Your task to perform on an android device: open app "AliExpress" (install if not already installed) Image 0: 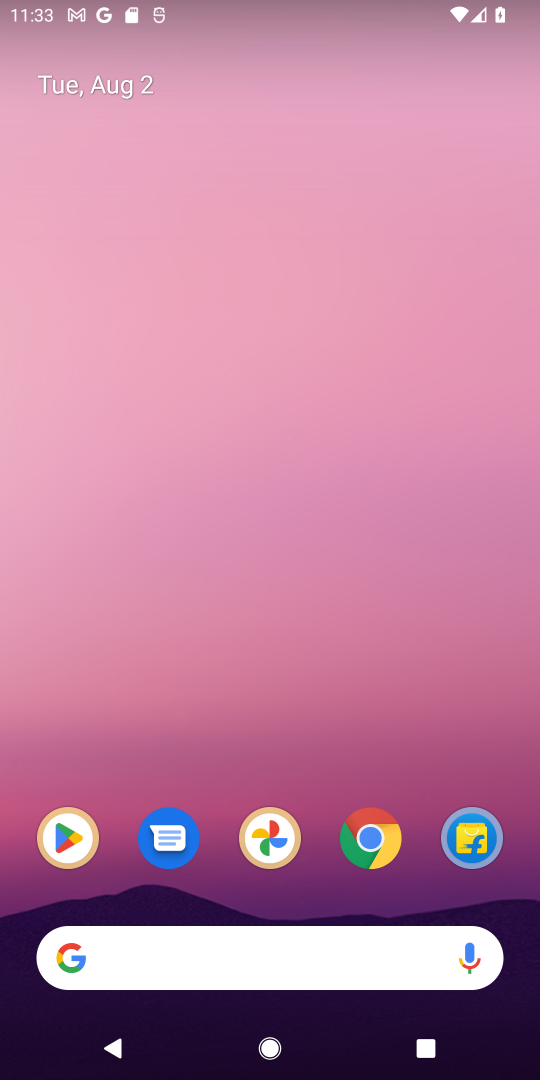
Step 0: click (79, 842)
Your task to perform on an android device: open app "AliExpress" (install if not already installed) Image 1: 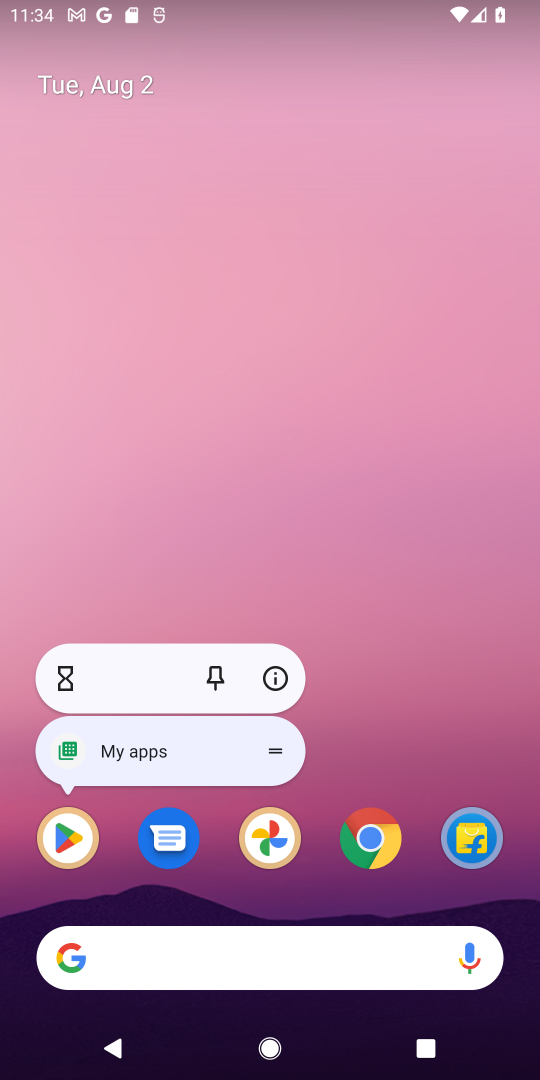
Step 1: click (79, 842)
Your task to perform on an android device: open app "AliExpress" (install if not already installed) Image 2: 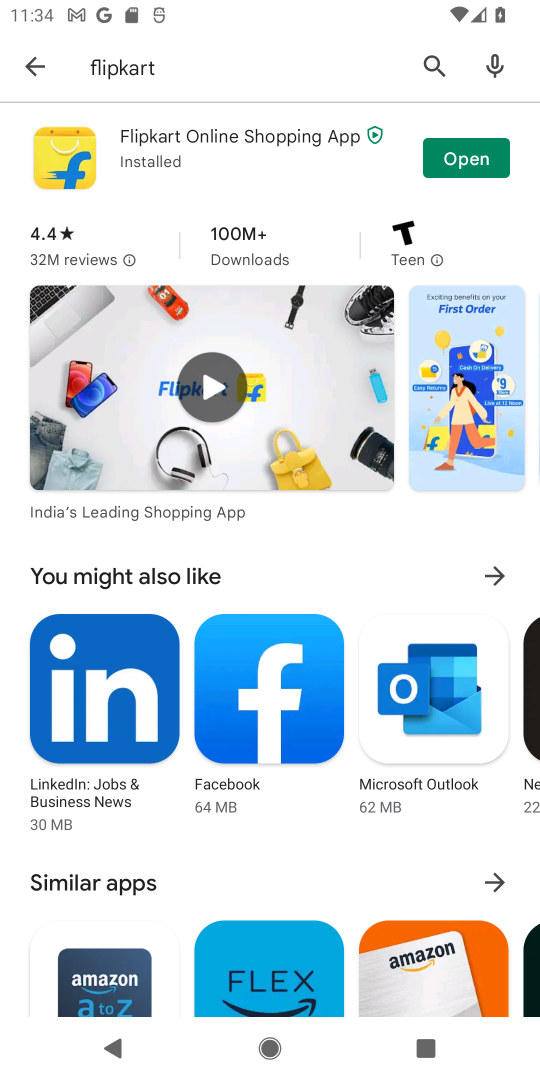
Step 2: click (434, 66)
Your task to perform on an android device: open app "AliExpress" (install if not already installed) Image 3: 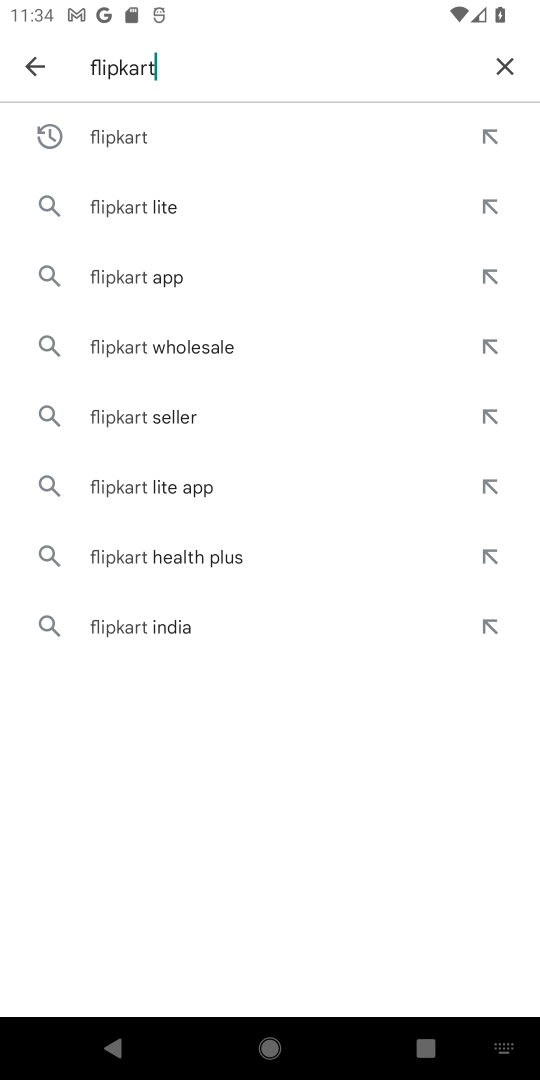
Step 3: click (513, 64)
Your task to perform on an android device: open app "AliExpress" (install if not already installed) Image 4: 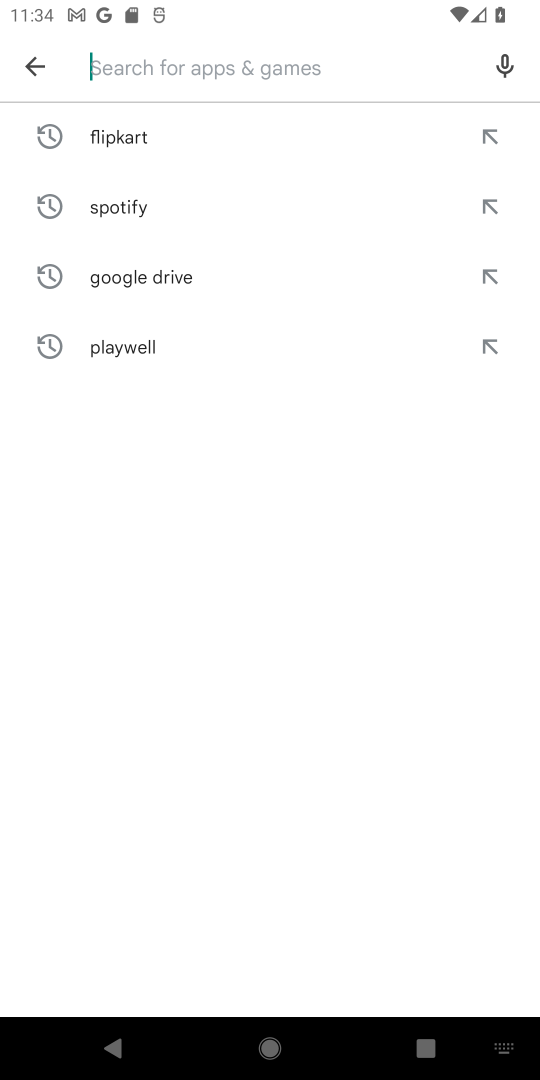
Step 4: type "AliExpress"
Your task to perform on an android device: open app "AliExpress" (install if not already installed) Image 5: 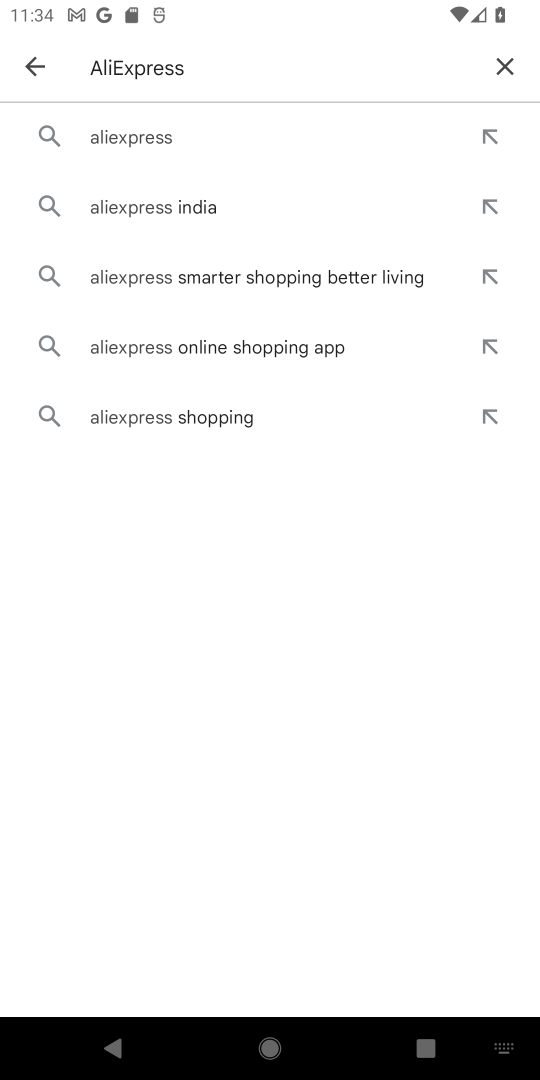
Step 5: click (130, 138)
Your task to perform on an android device: open app "AliExpress" (install if not already installed) Image 6: 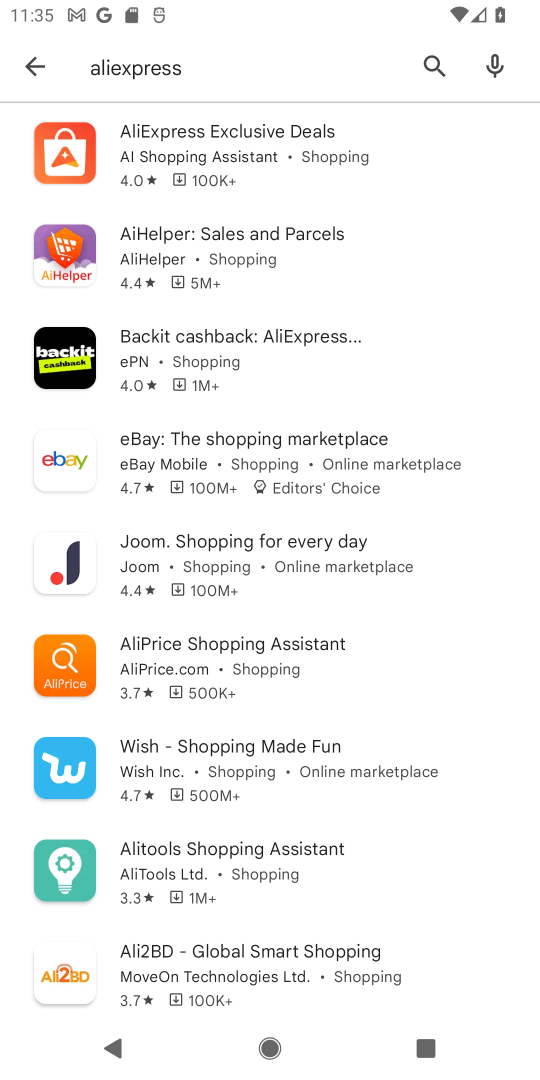
Step 6: click (216, 154)
Your task to perform on an android device: open app "AliExpress" (install if not already installed) Image 7: 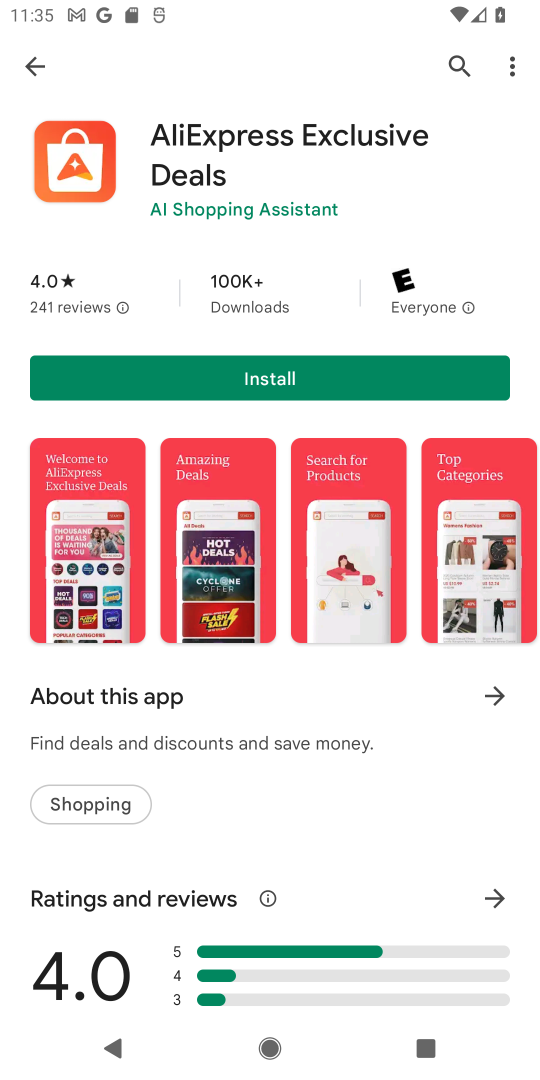
Step 7: click (224, 369)
Your task to perform on an android device: open app "AliExpress" (install if not already installed) Image 8: 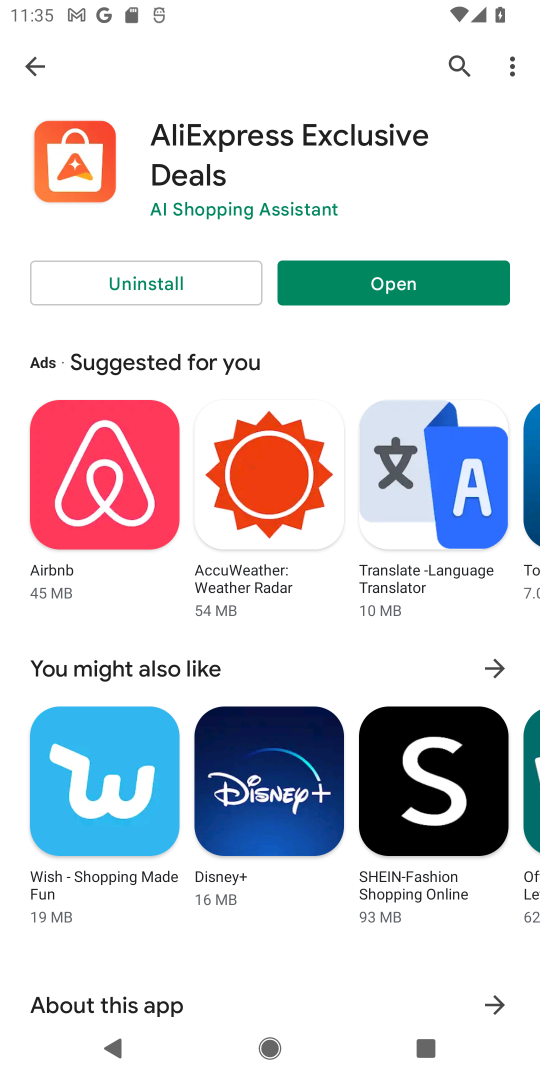
Step 8: click (379, 287)
Your task to perform on an android device: open app "AliExpress" (install if not already installed) Image 9: 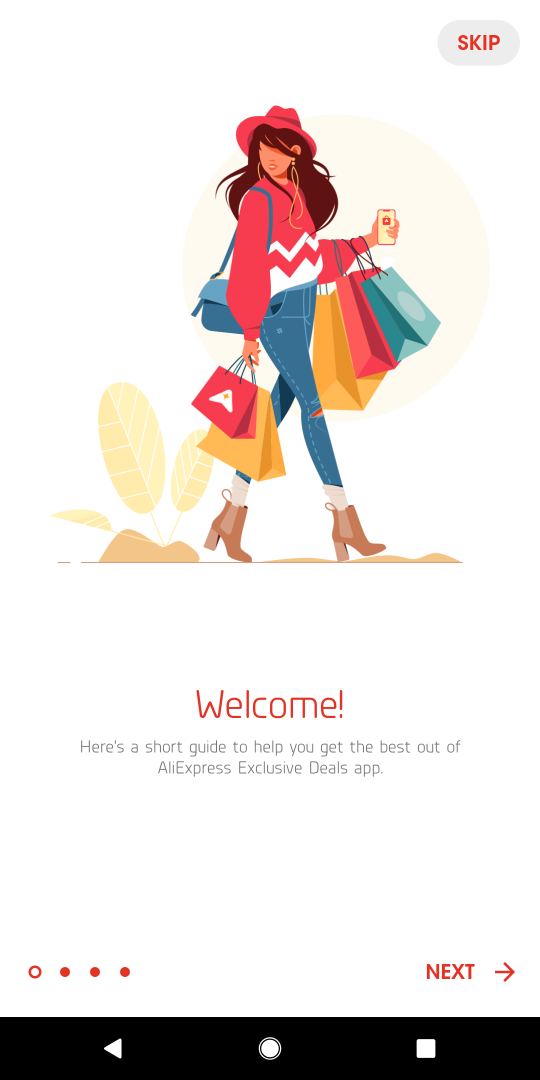
Step 9: task complete